Your task to perform on an android device: Check the weather Image 0: 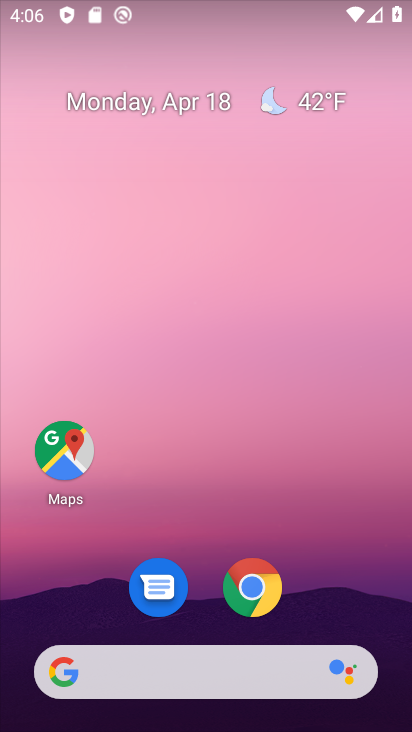
Step 0: click (293, 96)
Your task to perform on an android device: Check the weather Image 1: 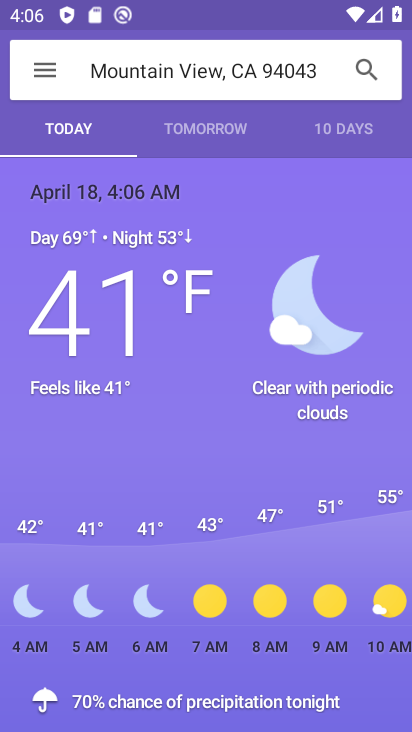
Step 1: task complete